Your task to perform on an android device: Show me the alarms in the clock app Image 0: 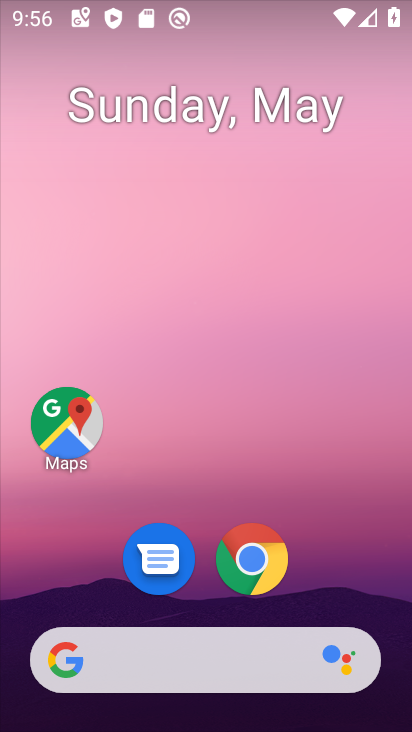
Step 0: press home button
Your task to perform on an android device: Show me the alarms in the clock app Image 1: 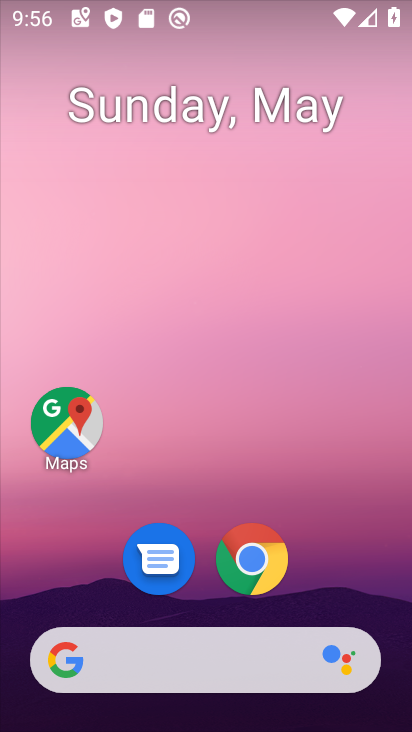
Step 1: drag from (289, 606) to (290, 221)
Your task to perform on an android device: Show me the alarms in the clock app Image 2: 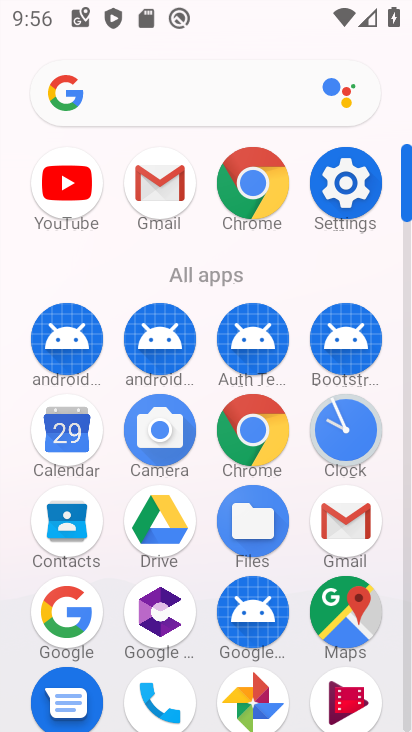
Step 2: click (351, 445)
Your task to perform on an android device: Show me the alarms in the clock app Image 3: 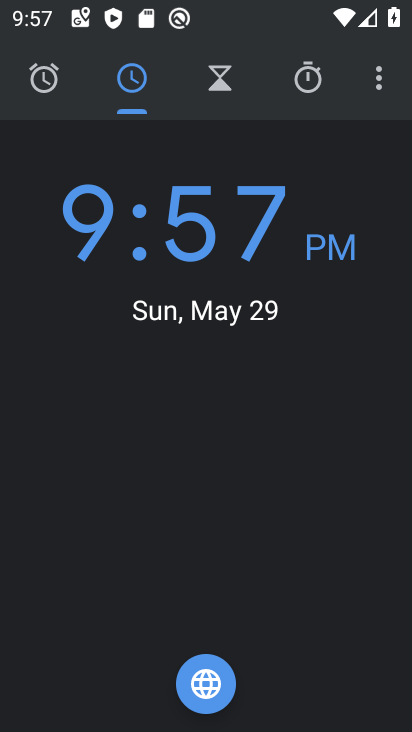
Step 3: click (46, 88)
Your task to perform on an android device: Show me the alarms in the clock app Image 4: 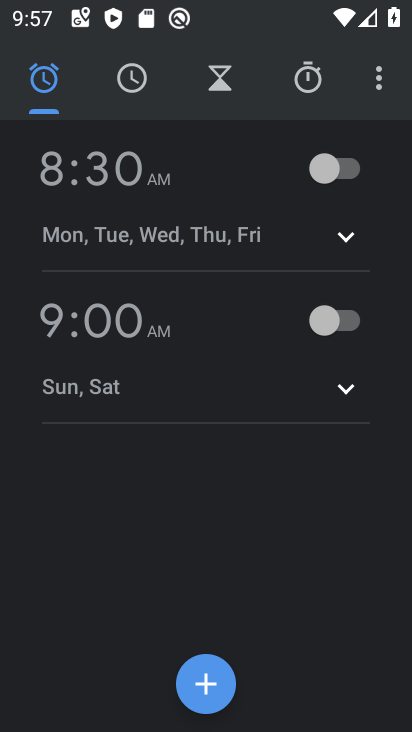
Step 4: task complete